Your task to perform on an android device: turn on translation in the chrome app Image 0: 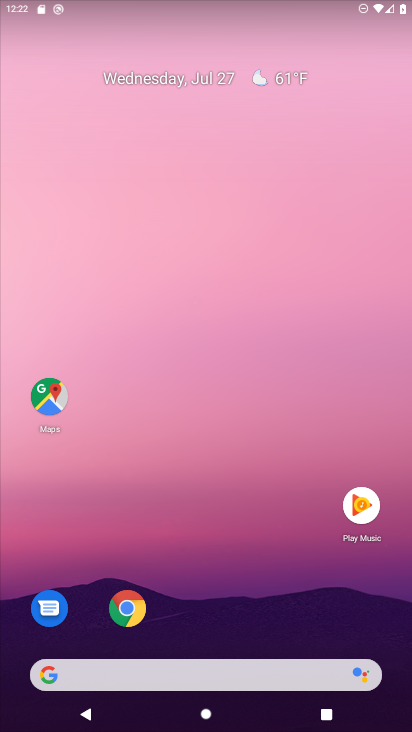
Step 0: drag from (274, 602) to (300, 250)
Your task to perform on an android device: turn on translation in the chrome app Image 1: 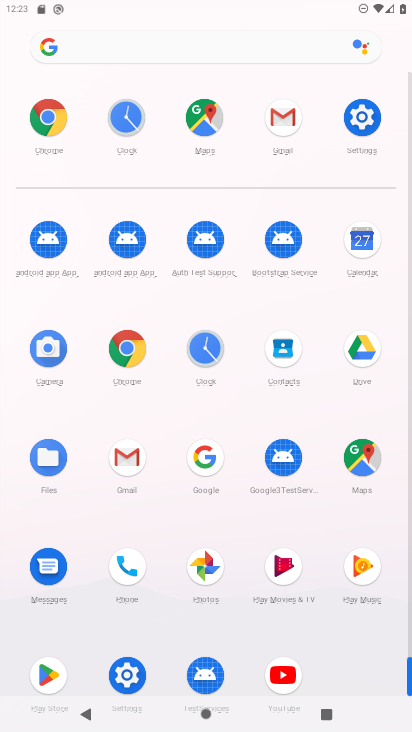
Step 1: click (130, 348)
Your task to perform on an android device: turn on translation in the chrome app Image 2: 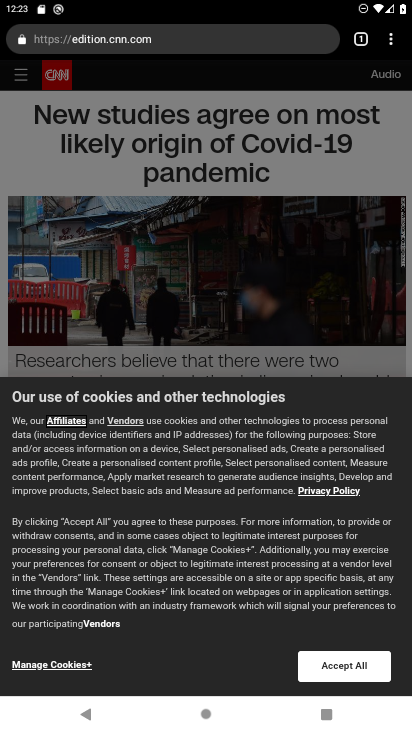
Step 2: click (391, 44)
Your task to perform on an android device: turn on translation in the chrome app Image 3: 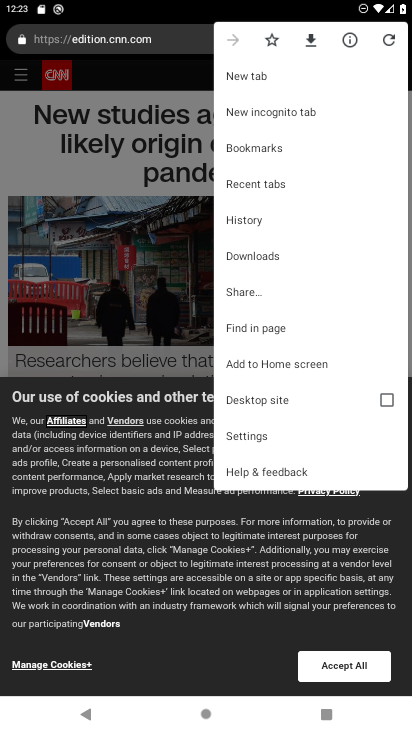
Step 3: drag from (345, 295) to (353, 239)
Your task to perform on an android device: turn on translation in the chrome app Image 4: 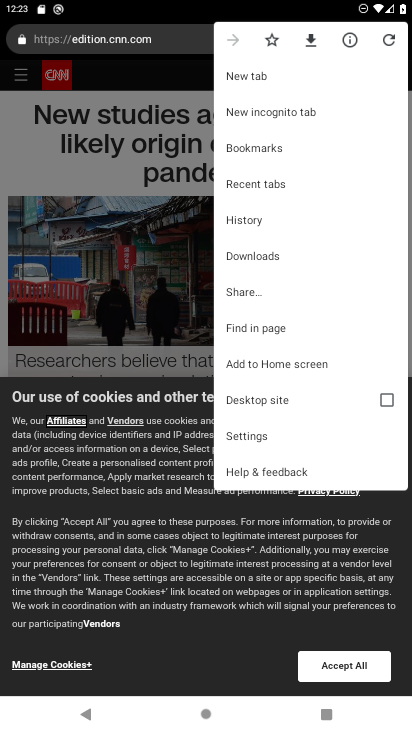
Step 4: click (295, 442)
Your task to perform on an android device: turn on translation in the chrome app Image 5: 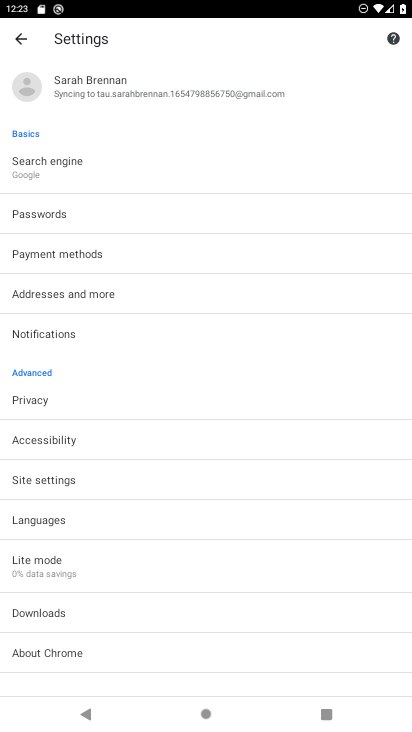
Step 5: drag from (294, 467) to (293, 429)
Your task to perform on an android device: turn on translation in the chrome app Image 6: 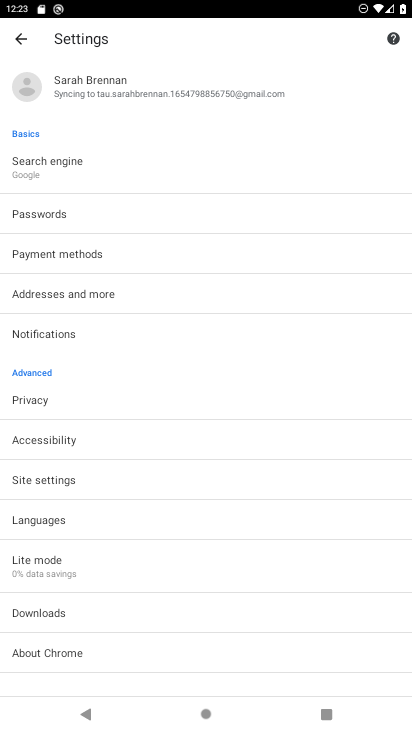
Step 6: drag from (289, 502) to (289, 463)
Your task to perform on an android device: turn on translation in the chrome app Image 7: 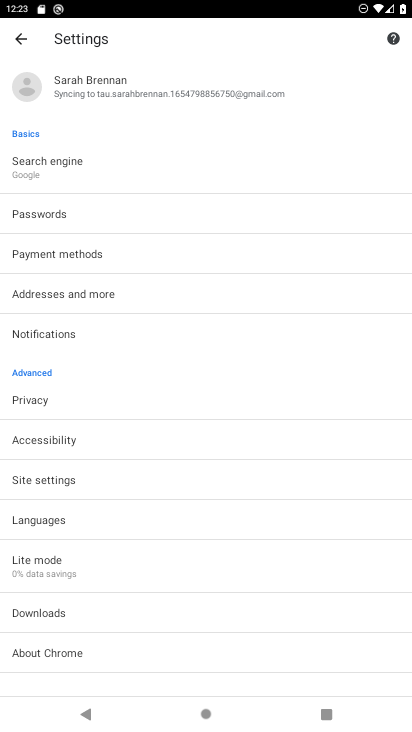
Step 7: click (271, 516)
Your task to perform on an android device: turn on translation in the chrome app Image 8: 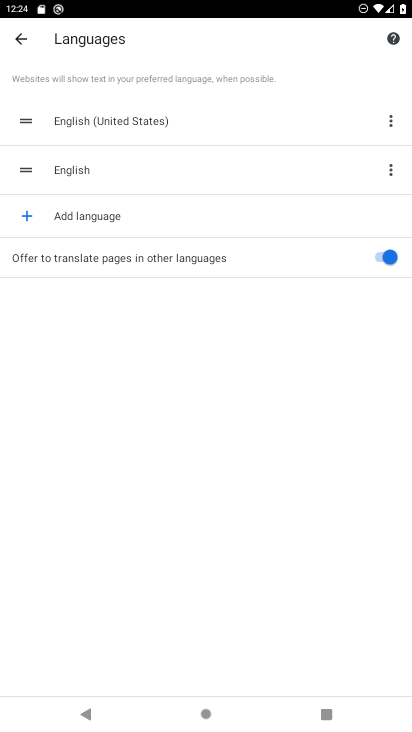
Step 8: task complete